Your task to perform on an android device: open app "The Home Depot" (install if not already installed) and go to login screen Image 0: 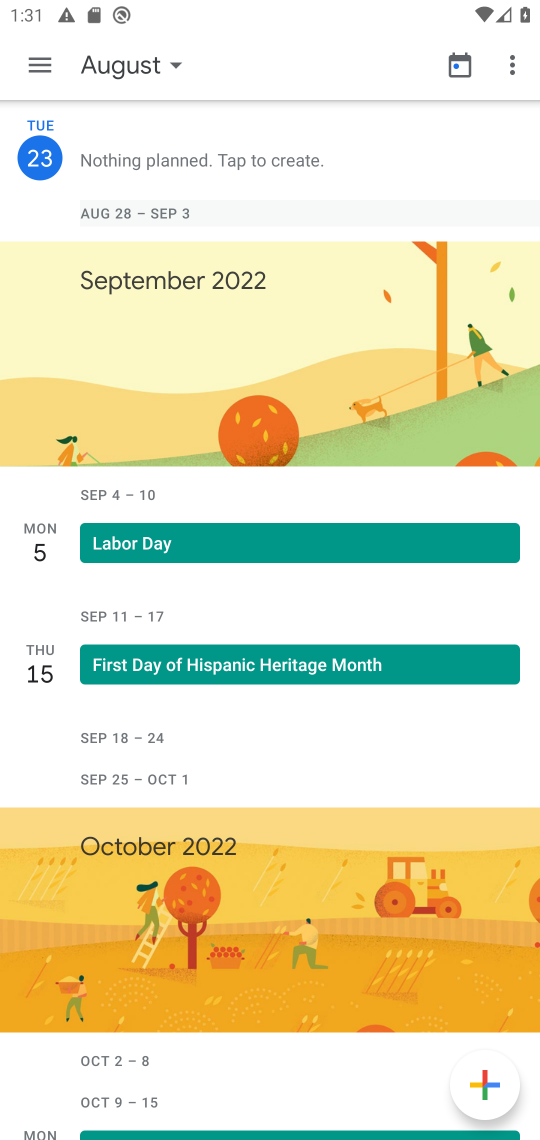
Step 0: press home button
Your task to perform on an android device: open app "The Home Depot" (install if not already installed) and go to login screen Image 1: 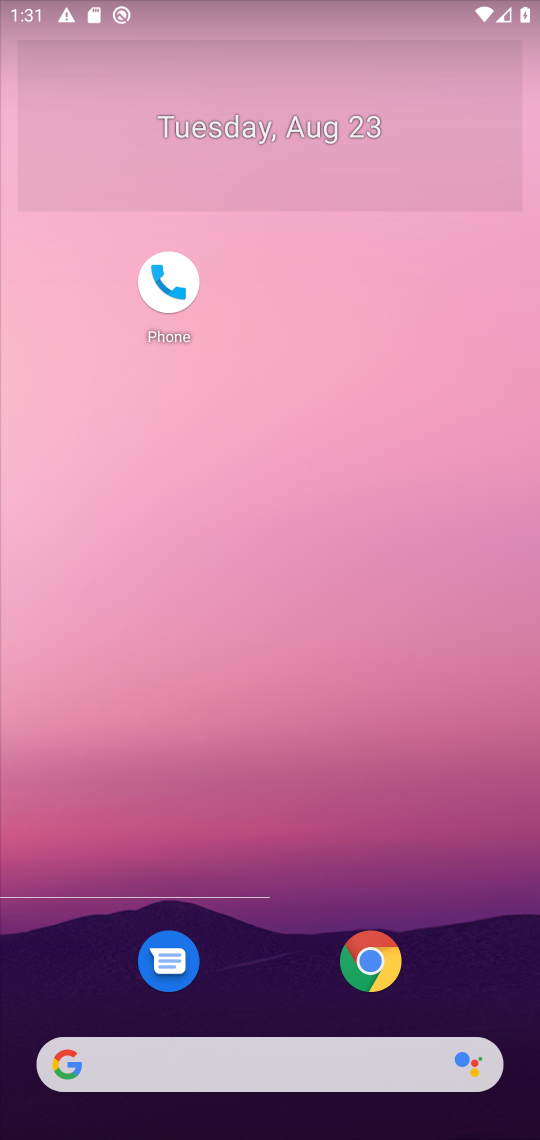
Step 1: drag from (282, 975) to (280, 223)
Your task to perform on an android device: open app "The Home Depot" (install if not already installed) and go to login screen Image 2: 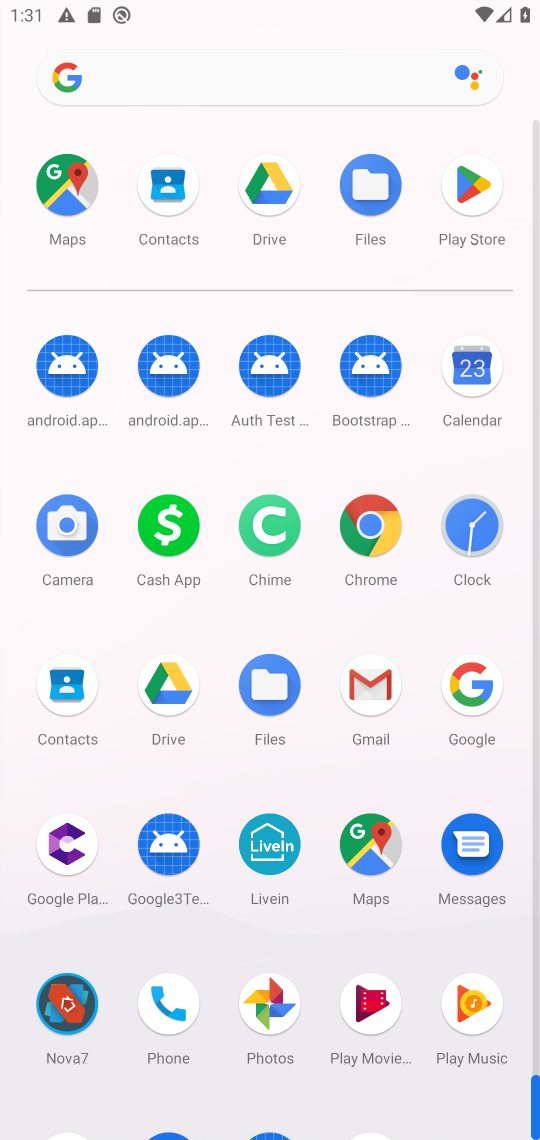
Step 2: click (476, 206)
Your task to perform on an android device: open app "The Home Depot" (install if not already installed) and go to login screen Image 3: 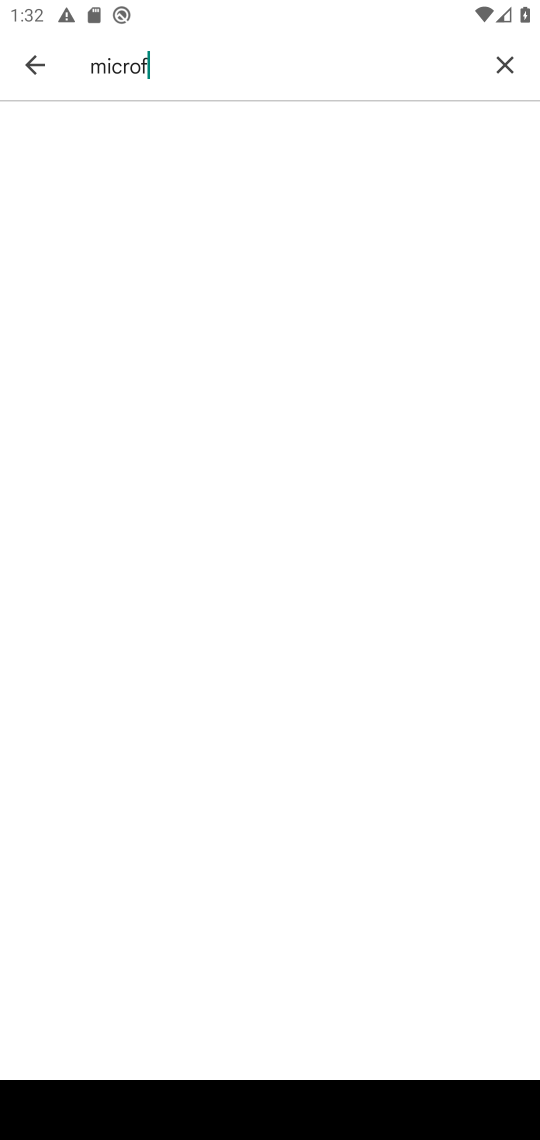
Step 3: click (491, 79)
Your task to perform on an android device: open app "The Home Depot" (install if not already installed) and go to login screen Image 4: 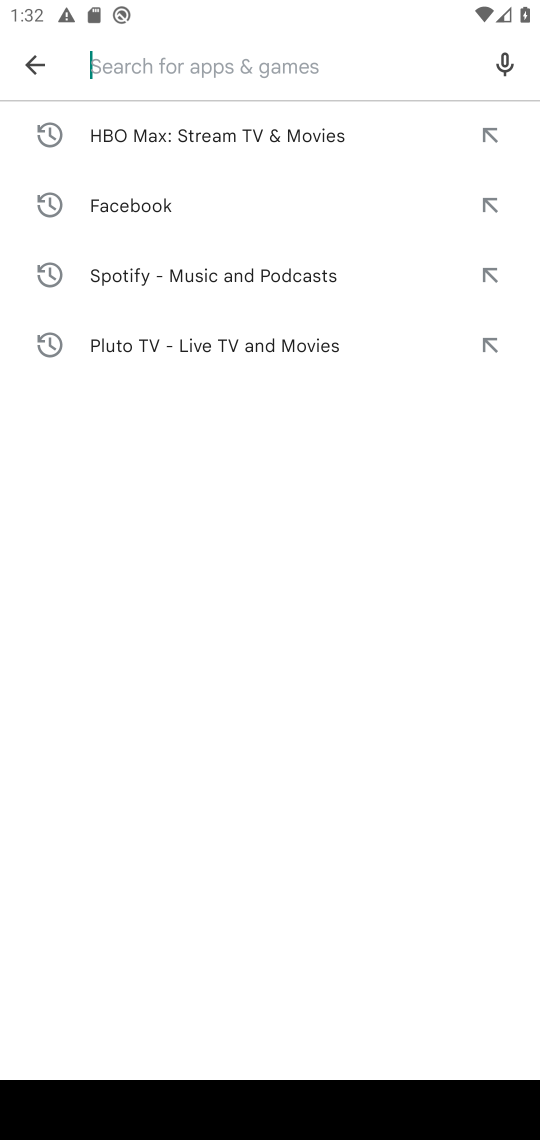
Step 4: type "the depot"
Your task to perform on an android device: open app "The Home Depot" (install if not already installed) and go to login screen Image 5: 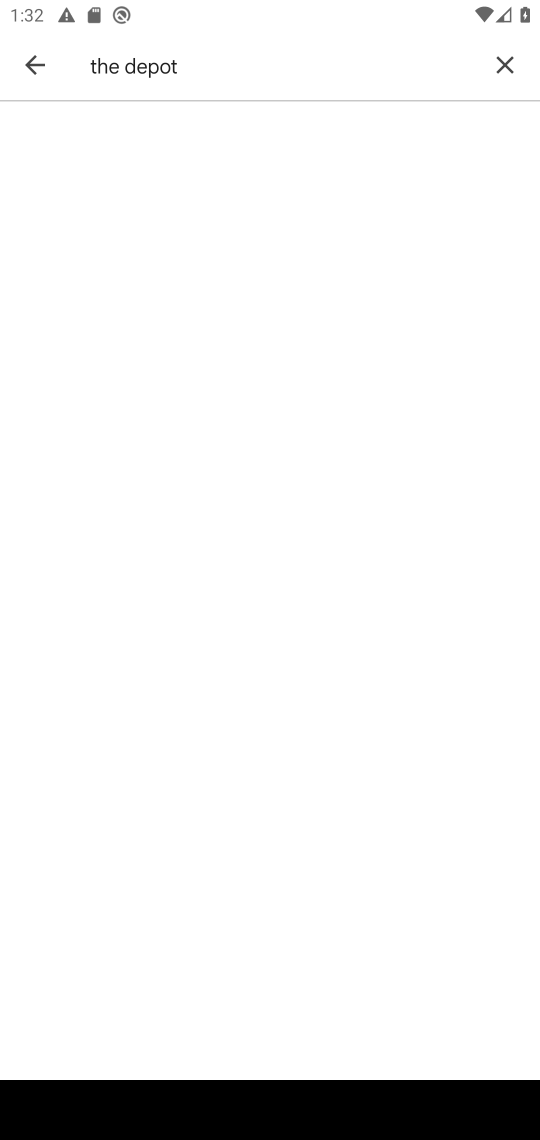
Step 5: task complete